Your task to perform on an android device: find snoozed emails in the gmail app Image 0: 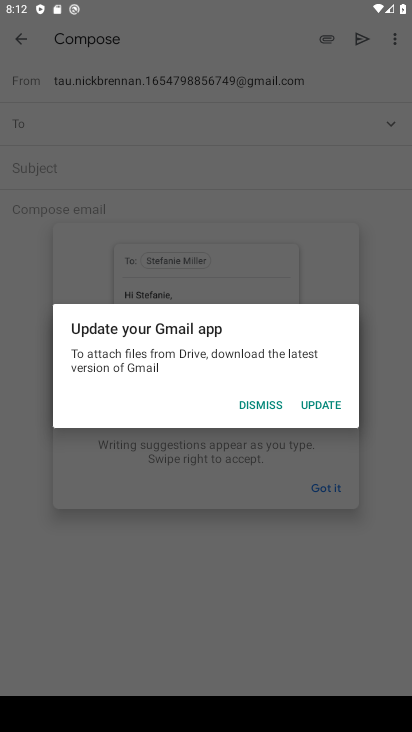
Step 0: press home button
Your task to perform on an android device: find snoozed emails in the gmail app Image 1: 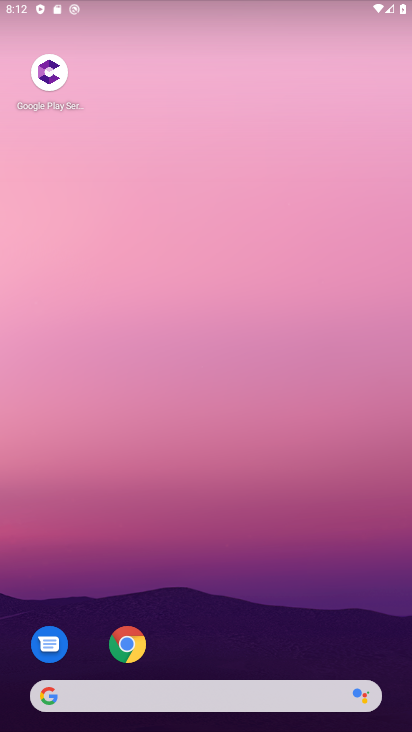
Step 1: drag from (232, 631) to (236, 164)
Your task to perform on an android device: find snoozed emails in the gmail app Image 2: 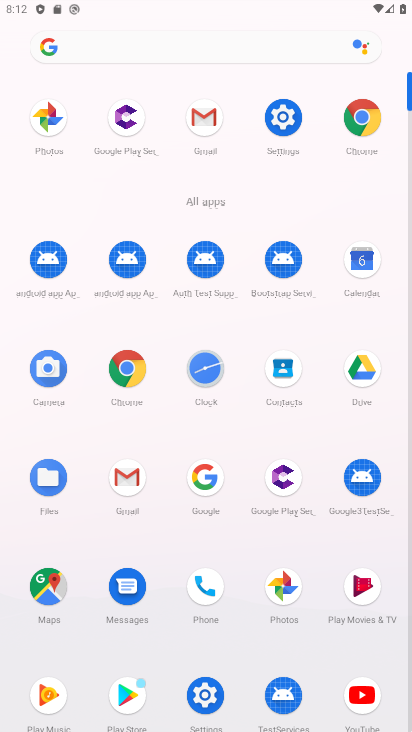
Step 2: click (201, 136)
Your task to perform on an android device: find snoozed emails in the gmail app Image 3: 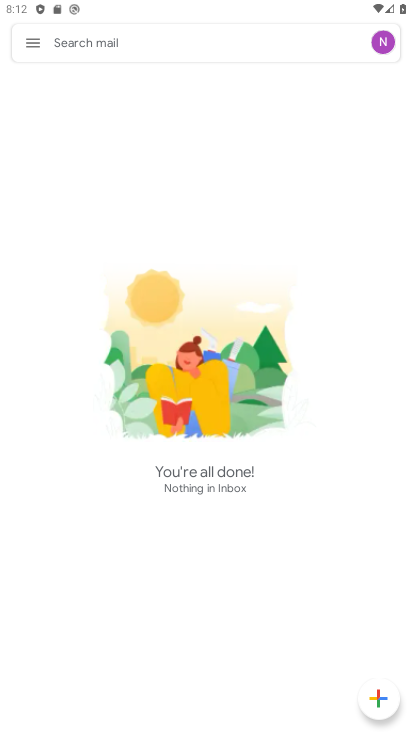
Step 3: click (25, 42)
Your task to perform on an android device: find snoozed emails in the gmail app Image 4: 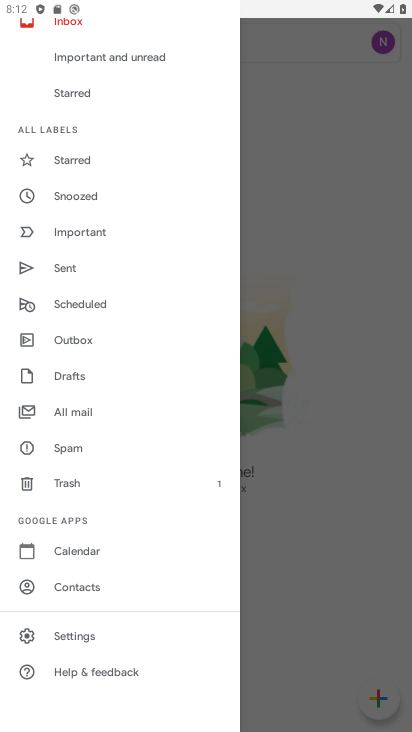
Step 4: click (121, 196)
Your task to perform on an android device: find snoozed emails in the gmail app Image 5: 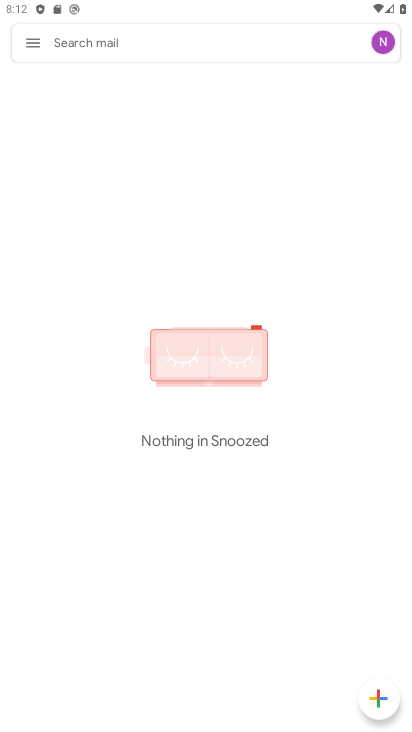
Step 5: task complete